Your task to perform on an android device: turn on airplane mode Image 0: 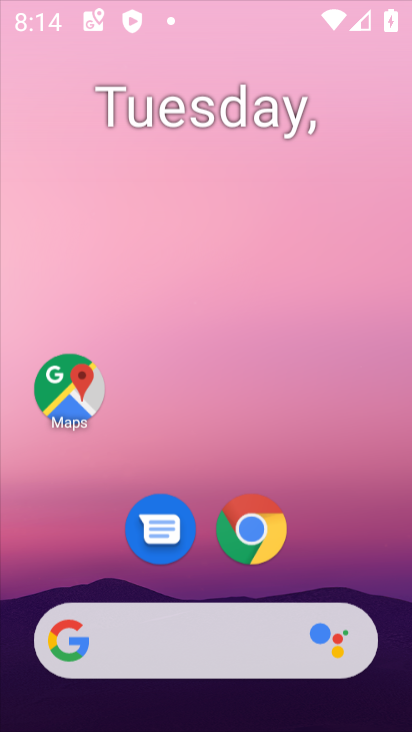
Step 0: drag from (231, 675) to (298, 121)
Your task to perform on an android device: turn on airplane mode Image 1: 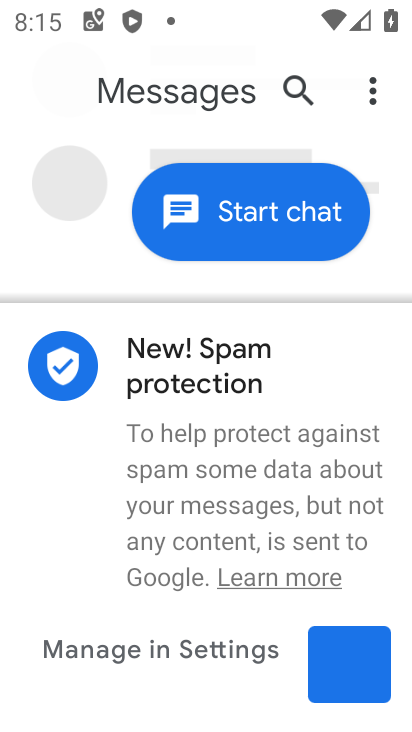
Step 1: press home button
Your task to perform on an android device: turn on airplane mode Image 2: 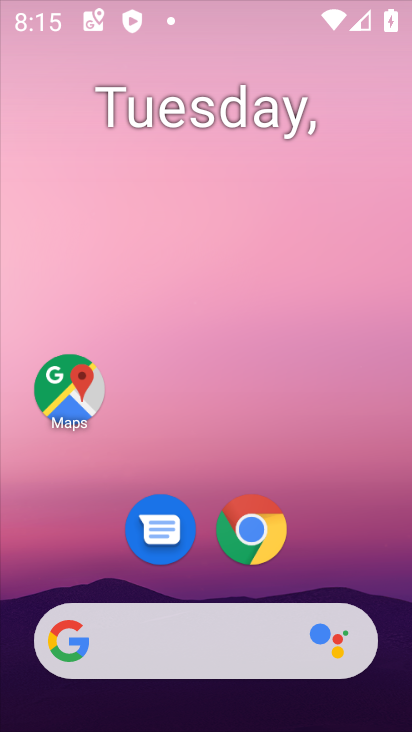
Step 2: drag from (228, 700) to (222, 122)
Your task to perform on an android device: turn on airplane mode Image 3: 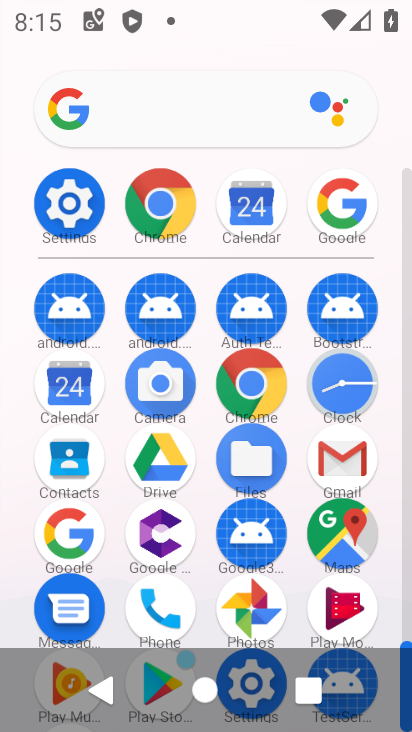
Step 3: drag from (358, 23) to (265, 530)
Your task to perform on an android device: turn on airplane mode Image 4: 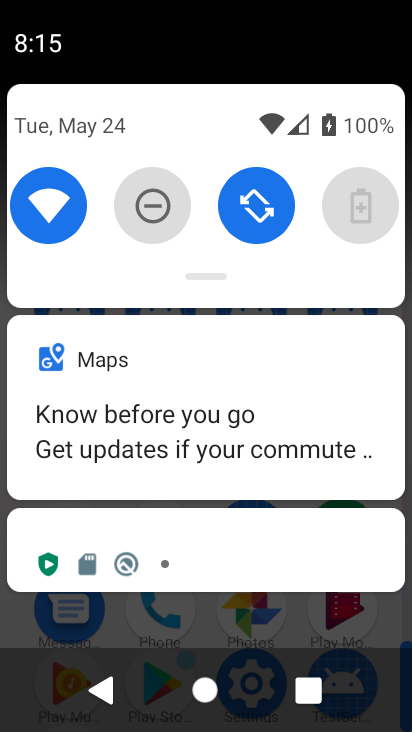
Step 4: drag from (224, 617) to (224, 28)
Your task to perform on an android device: turn on airplane mode Image 5: 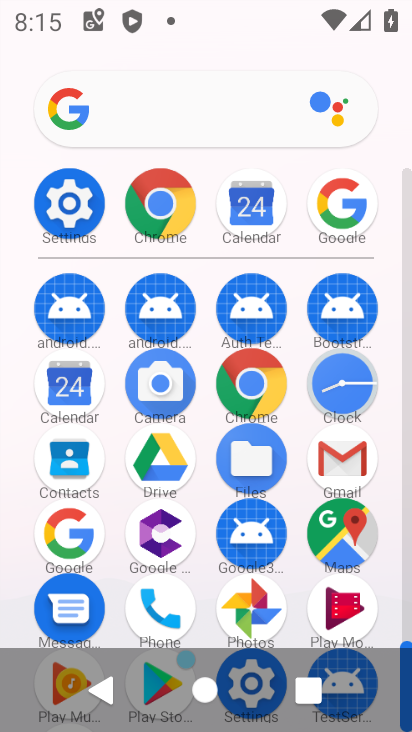
Step 5: click (81, 223)
Your task to perform on an android device: turn on airplane mode Image 6: 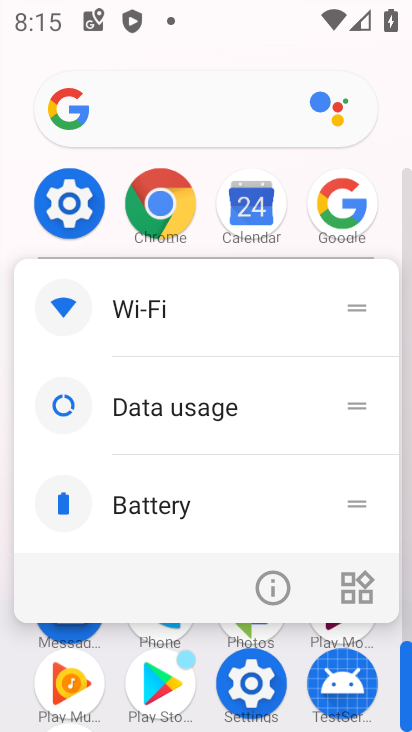
Step 6: click (67, 223)
Your task to perform on an android device: turn on airplane mode Image 7: 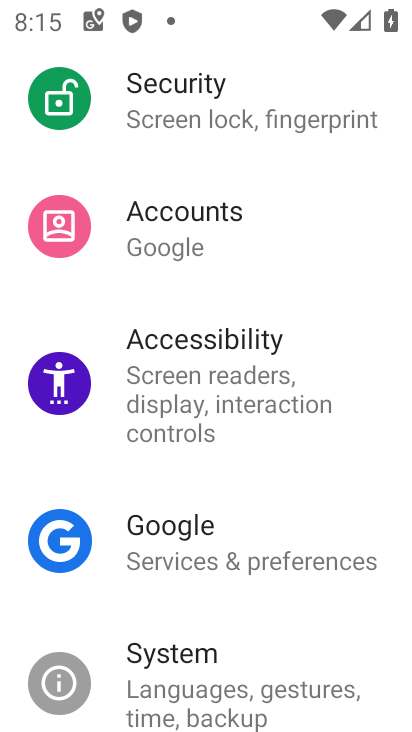
Step 7: drag from (244, 244) to (307, 628)
Your task to perform on an android device: turn on airplane mode Image 8: 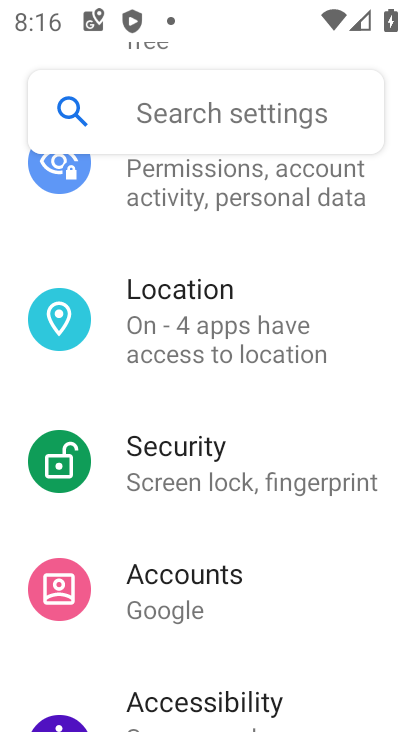
Step 8: drag from (223, 343) to (182, 703)
Your task to perform on an android device: turn on airplane mode Image 9: 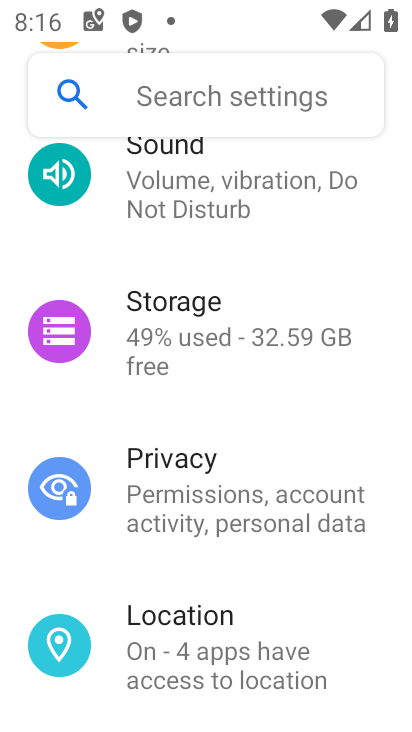
Step 9: drag from (242, 285) to (210, 710)
Your task to perform on an android device: turn on airplane mode Image 10: 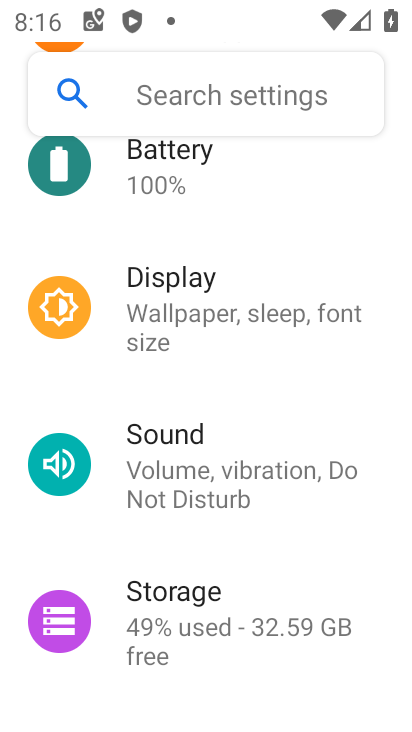
Step 10: drag from (209, 282) to (213, 713)
Your task to perform on an android device: turn on airplane mode Image 11: 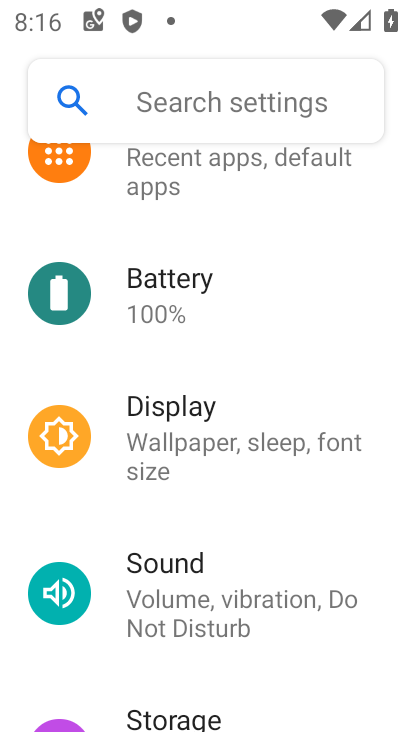
Step 11: drag from (236, 311) to (195, 730)
Your task to perform on an android device: turn on airplane mode Image 12: 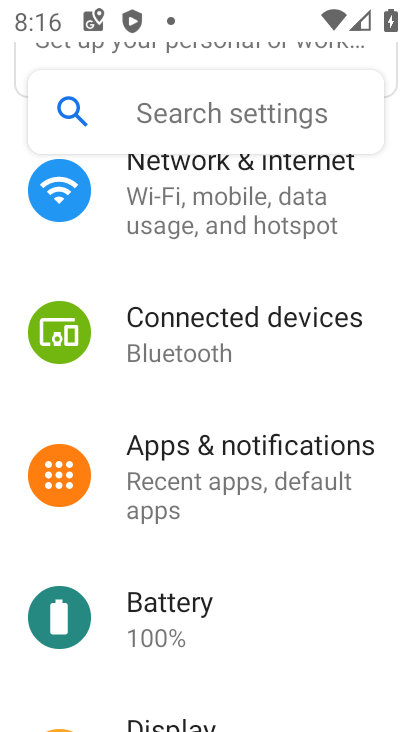
Step 12: drag from (234, 295) to (205, 663)
Your task to perform on an android device: turn on airplane mode Image 13: 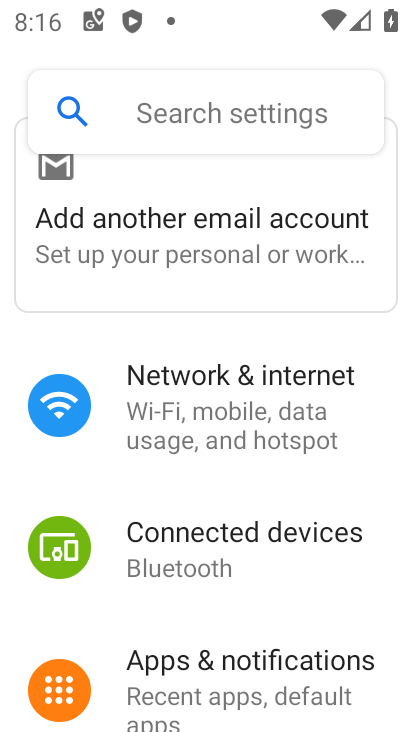
Step 13: click (284, 429)
Your task to perform on an android device: turn on airplane mode Image 14: 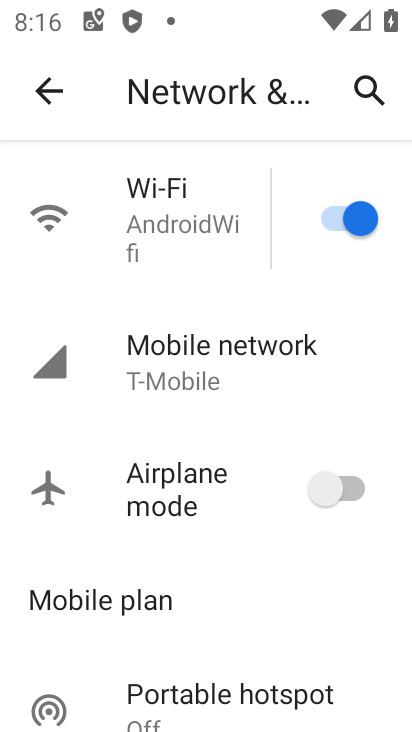
Step 14: click (228, 489)
Your task to perform on an android device: turn on airplane mode Image 15: 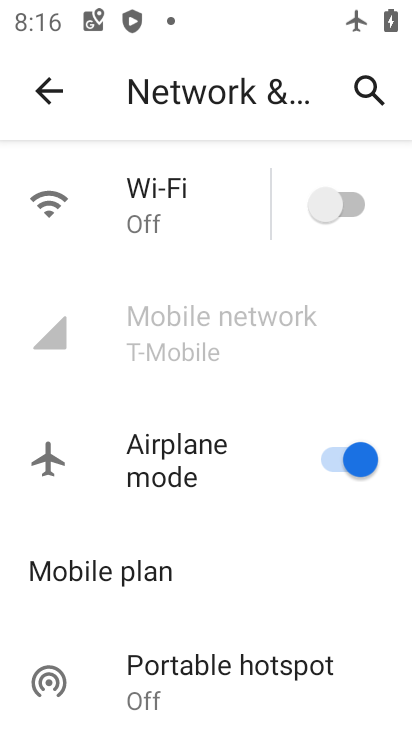
Step 15: task complete